Your task to perform on an android device: change the clock display to show seconds Image 0: 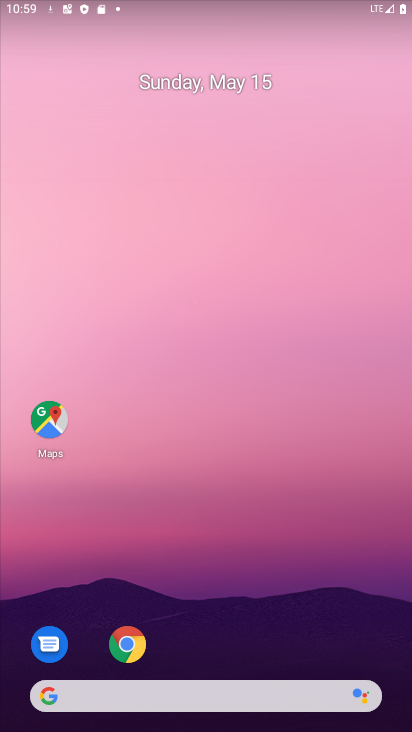
Step 0: drag from (251, 707) to (200, 152)
Your task to perform on an android device: change the clock display to show seconds Image 1: 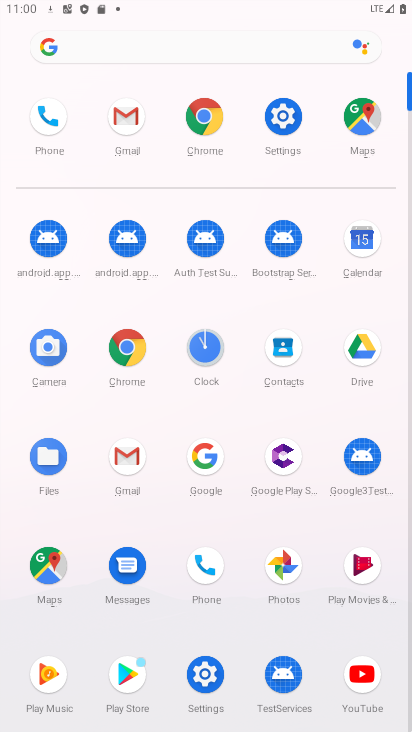
Step 1: click (188, 360)
Your task to perform on an android device: change the clock display to show seconds Image 2: 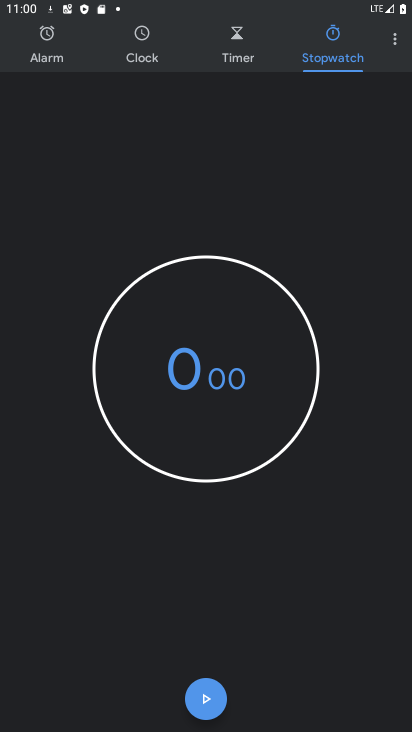
Step 2: click (390, 52)
Your task to perform on an android device: change the clock display to show seconds Image 3: 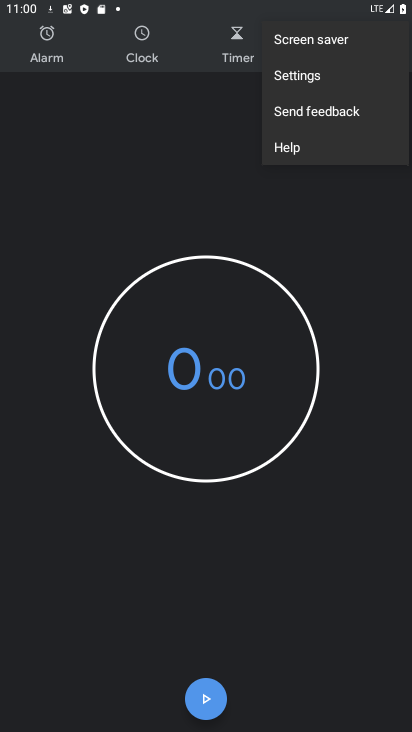
Step 3: click (307, 81)
Your task to perform on an android device: change the clock display to show seconds Image 4: 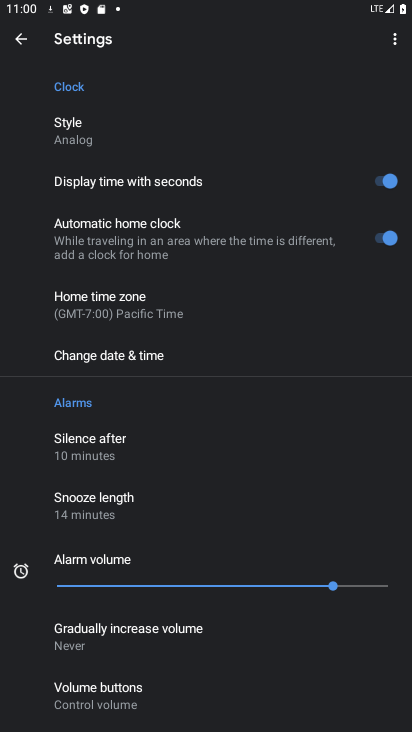
Step 4: click (270, 190)
Your task to perform on an android device: change the clock display to show seconds Image 5: 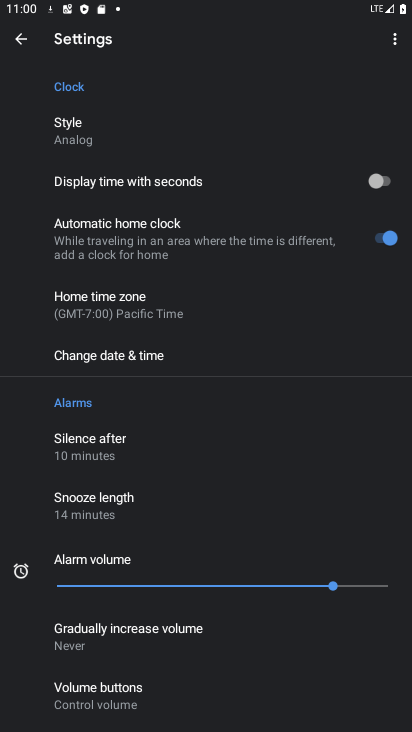
Step 5: task complete